Your task to perform on an android device: open device folders in google photos Image 0: 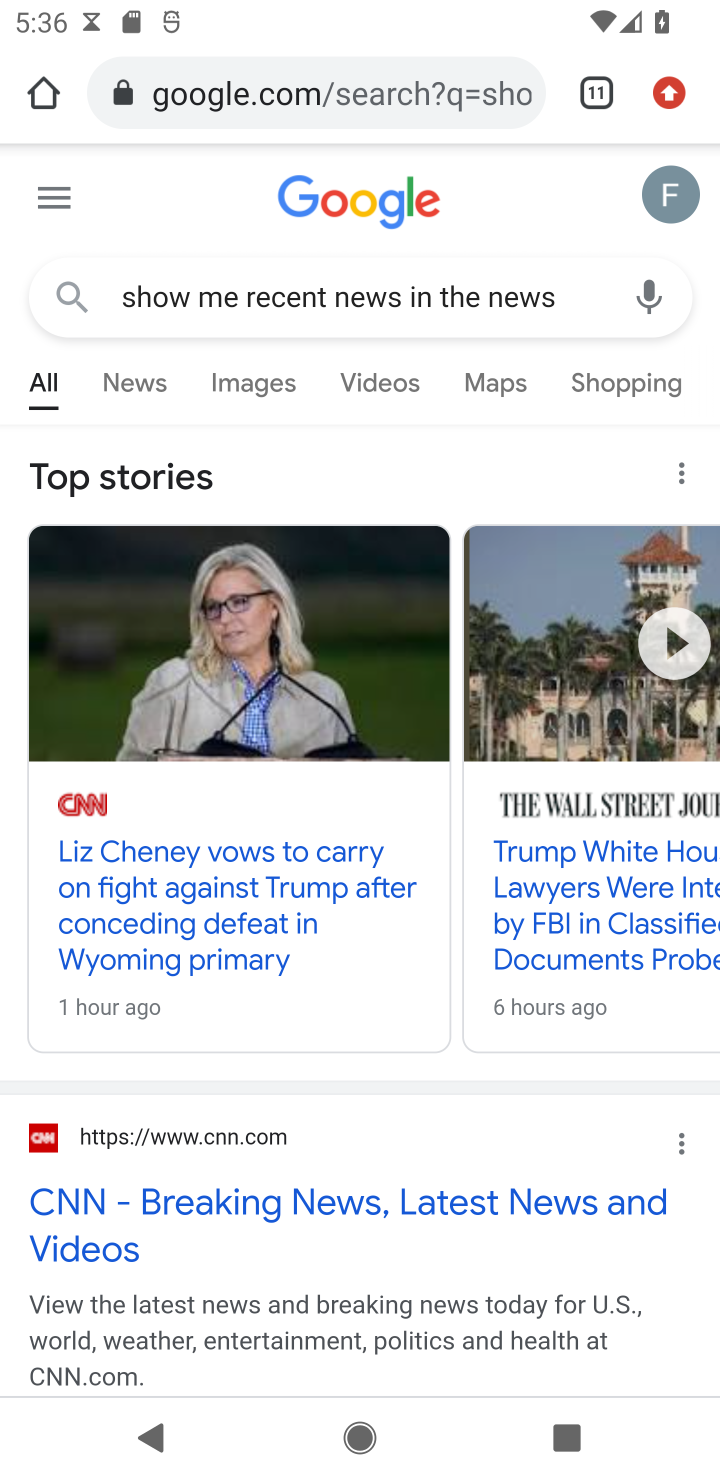
Step 0: press home button
Your task to perform on an android device: open device folders in google photos Image 1: 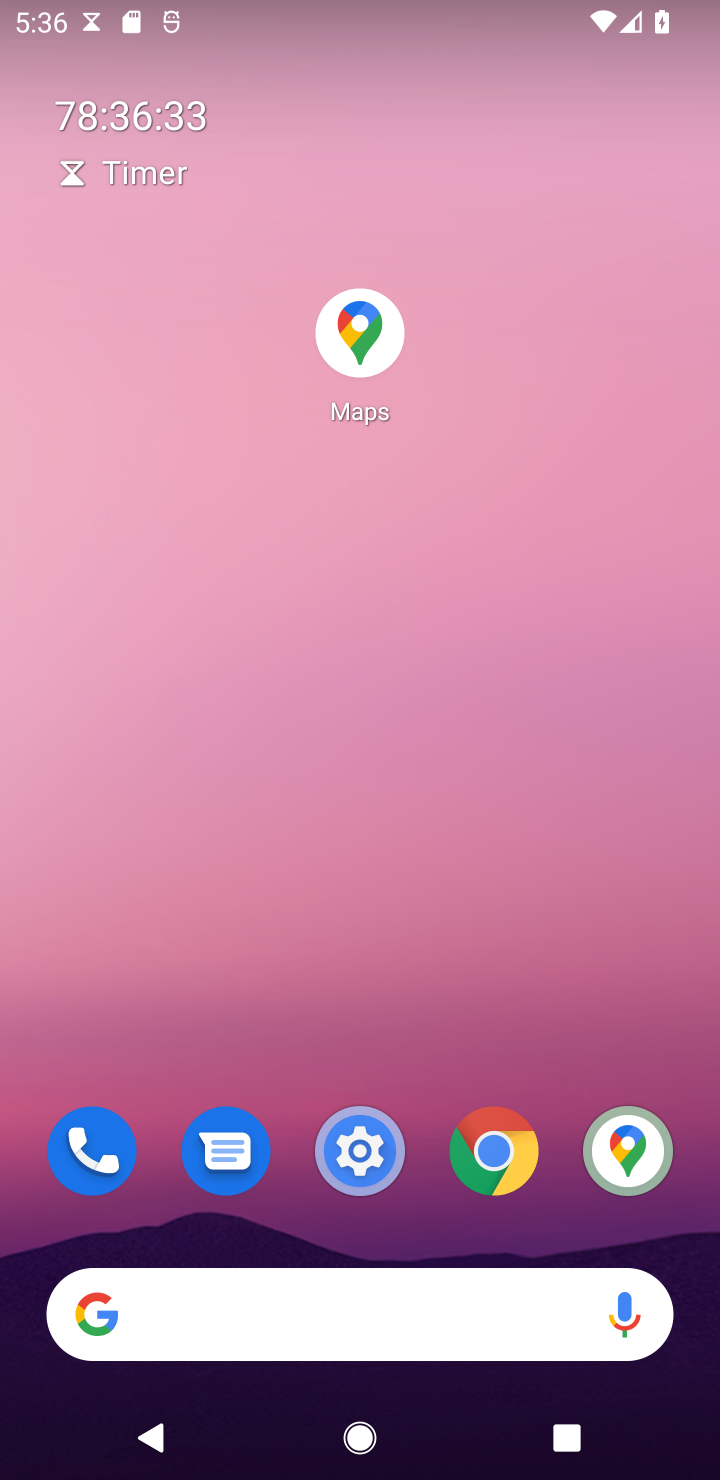
Step 1: drag from (269, 1324) to (310, 441)
Your task to perform on an android device: open device folders in google photos Image 2: 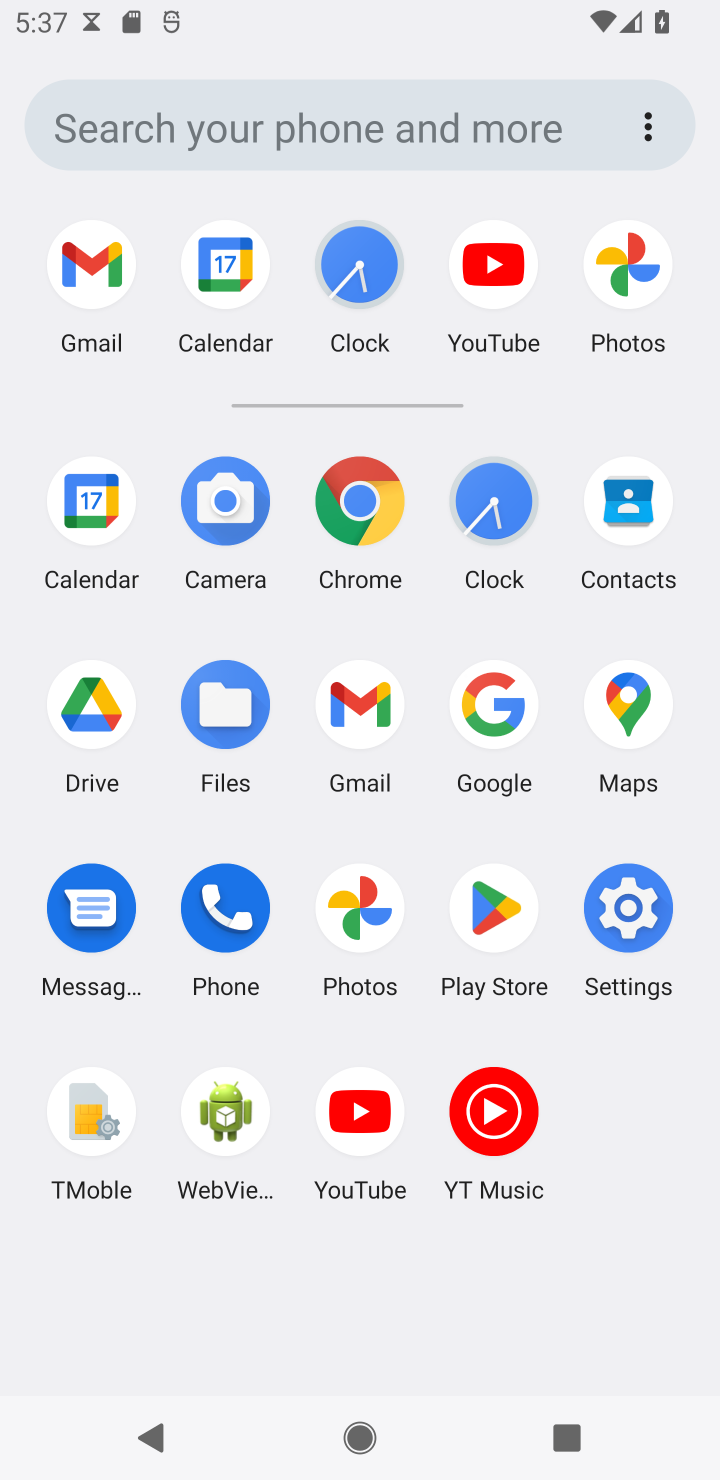
Step 2: click (358, 904)
Your task to perform on an android device: open device folders in google photos Image 3: 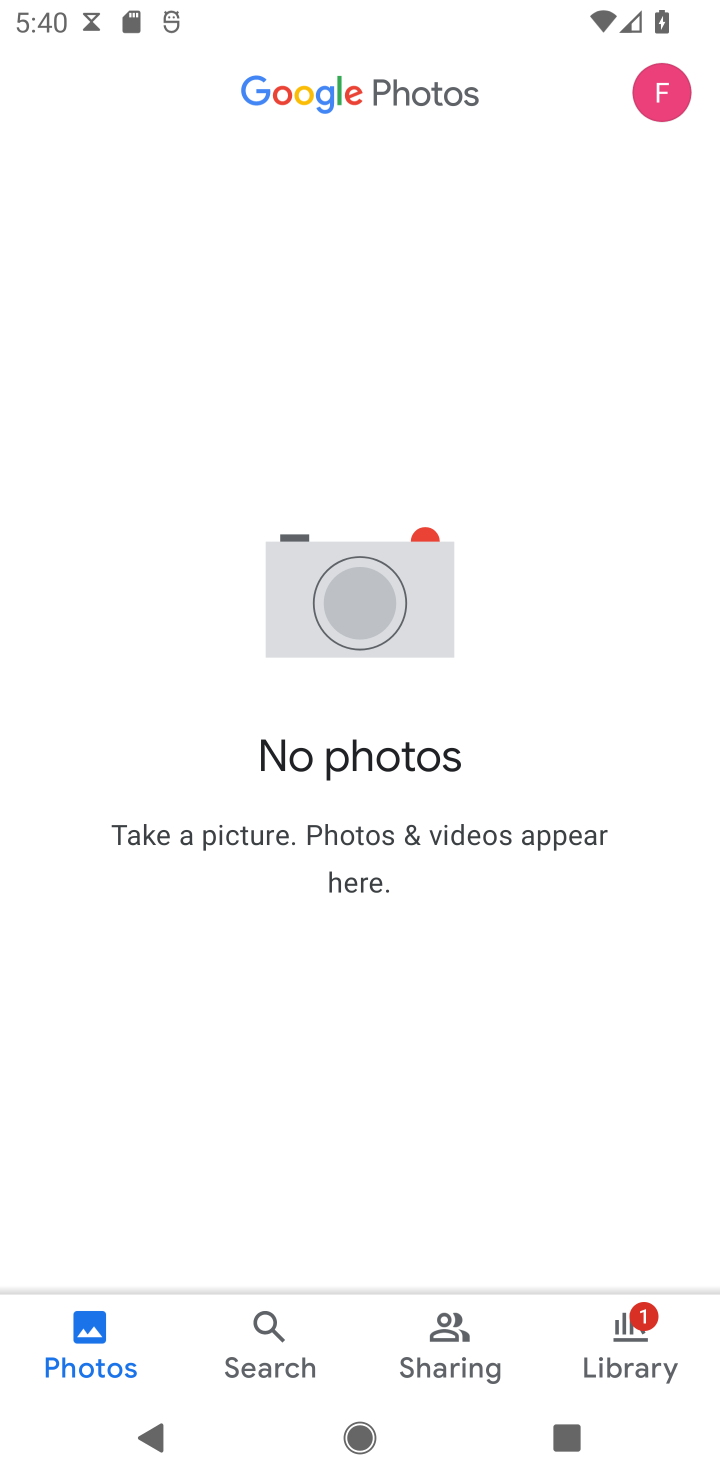
Step 3: task complete